Your task to perform on an android device: What's the weather going to be this weekend? Image 0: 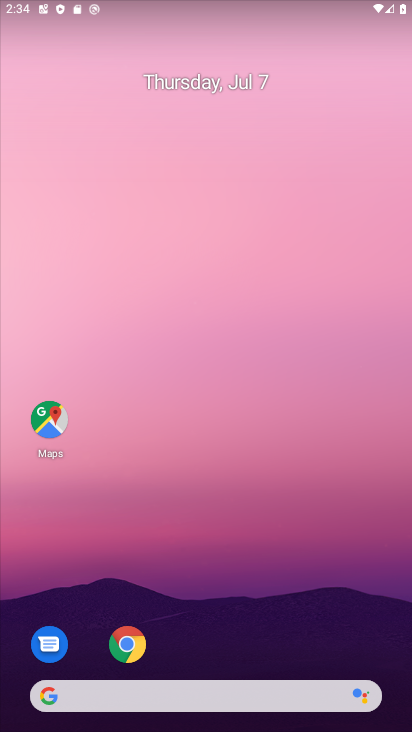
Step 0: press home button
Your task to perform on an android device: What's the weather going to be this weekend? Image 1: 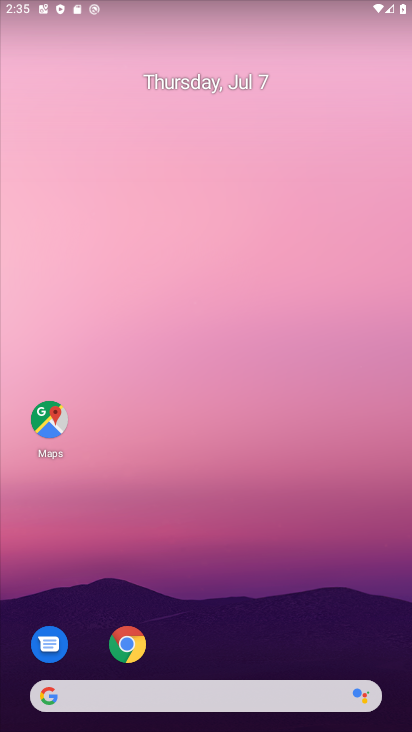
Step 1: click (45, 698)
Your task to perform on an android device: What's the weather going to be this weekend? Image 2: 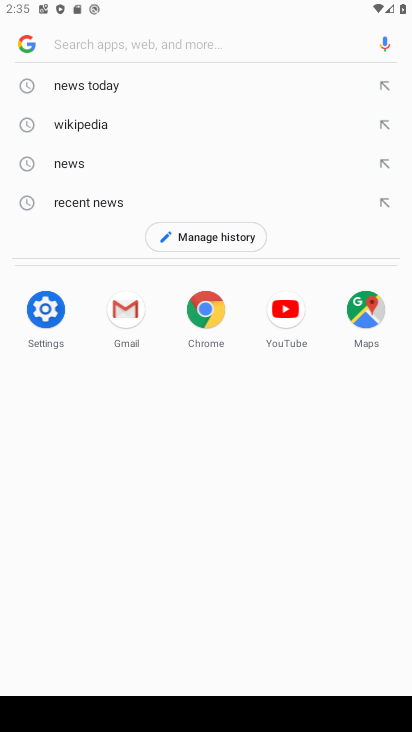
Step 2: type "weather this weekend"
Your task to perform on an android device: What's the weather going to be this weekend? Image 3: 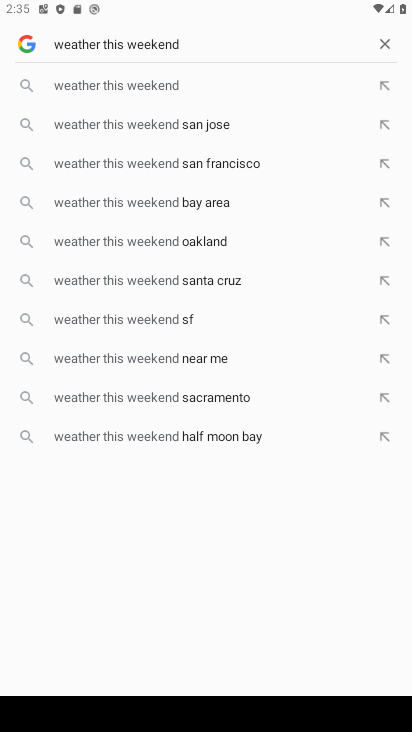
Step 3: click (107, 90)
Your task to perform on an android device: What's the weather going to be this weekend? Image 4: 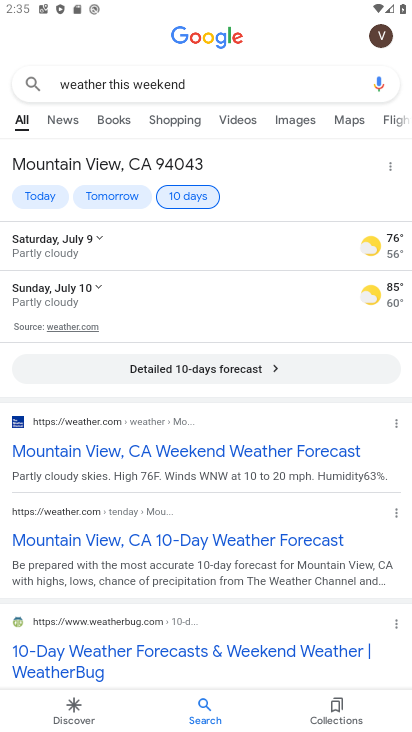
Step 4: task complete